Your task to perform on an android device: Go to Google Image 0: 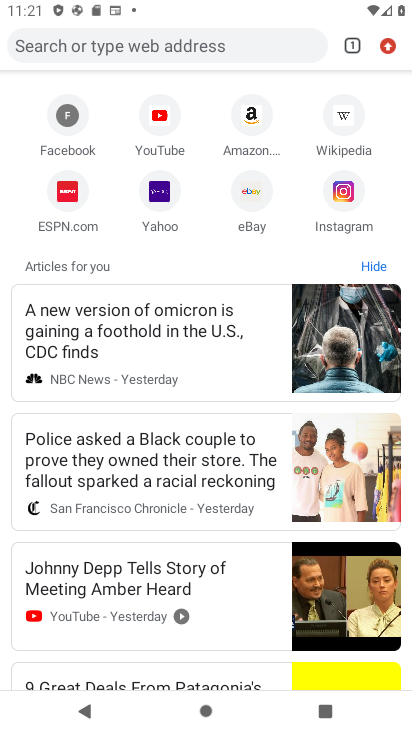
Step 0: press home button
Your task to perform on an android device: Go to Google Image 1: 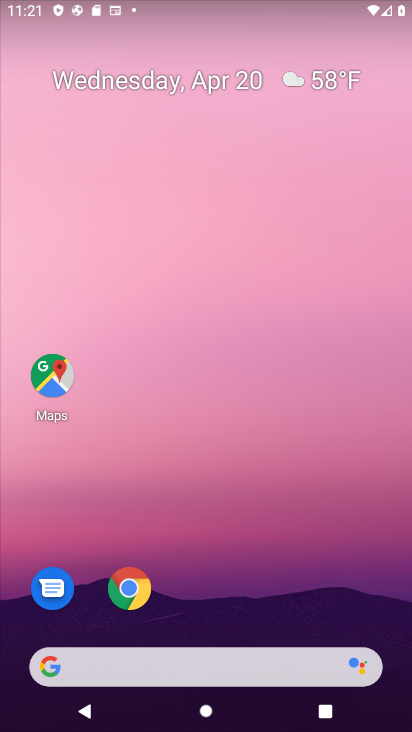
Step 1: drag from (182, 579) to (183, 226)
Your task to perform on an android device: Go to Google Image 2: 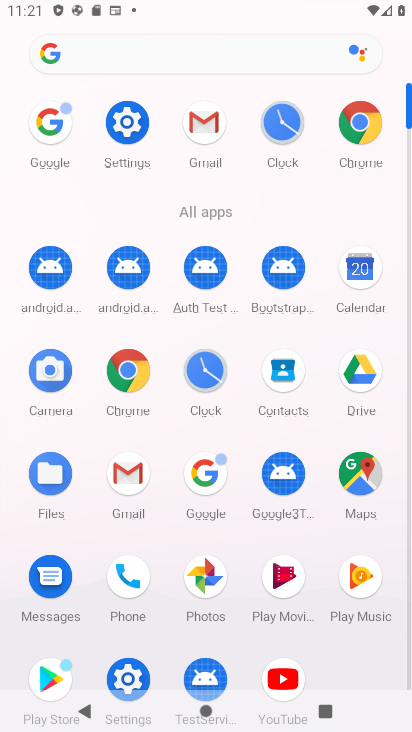
Step 2: click (222, 481)
Your task to perform on an android device: Go to Google Image 3: 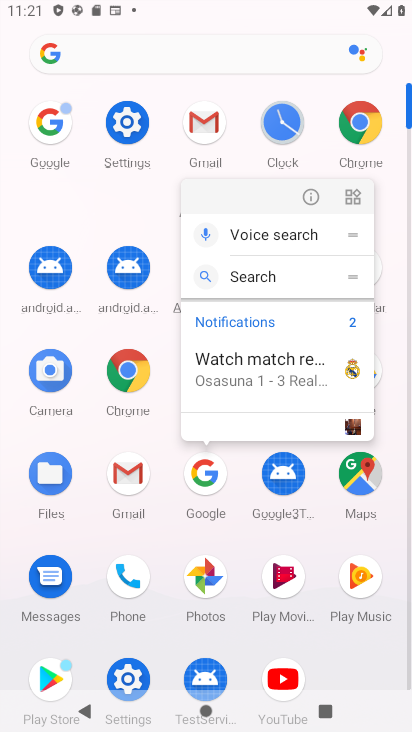
Step 3: click (207, 482)
Your task to perform on an android device: Go to Google Image 4: 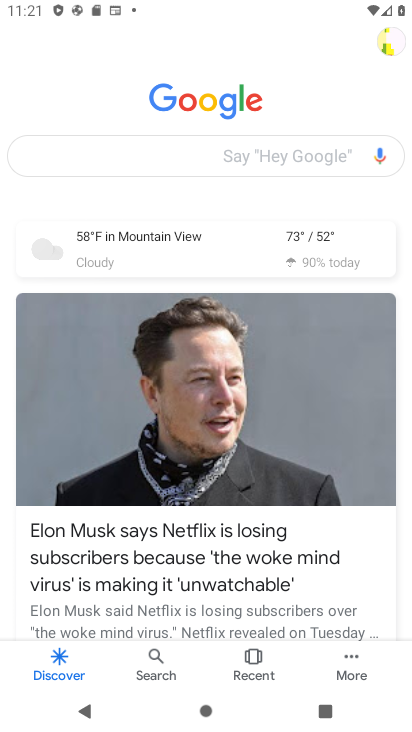
Step 4: task complete